Your task to perform on an android device: Open settings Image 0: 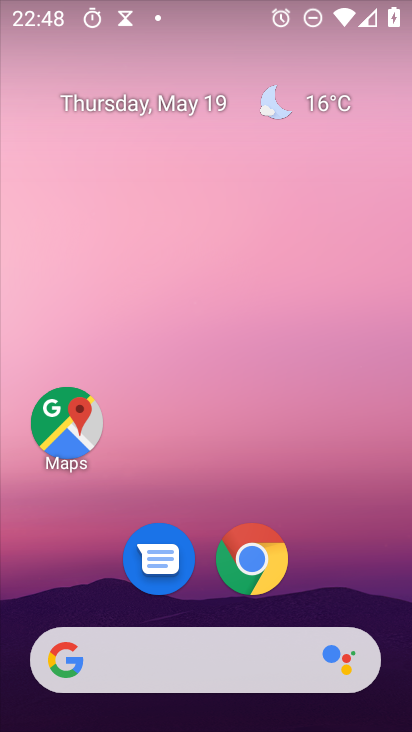
Step 0: drag from (211, 723) to (205, 187)
Your task to perform on an android device: Open settings Image 1: 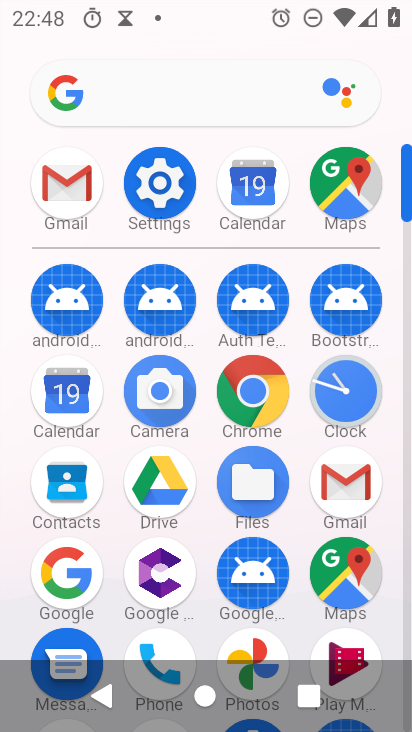
Step 1: click (156, 184)
Your task to perform on an android device: Open settings Image 2: 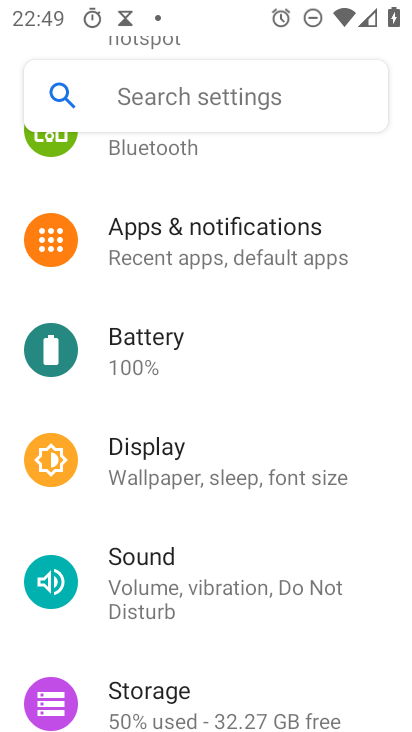
Step 2: task complete